Your task to perform on an android device: Open battery settings Image 0: 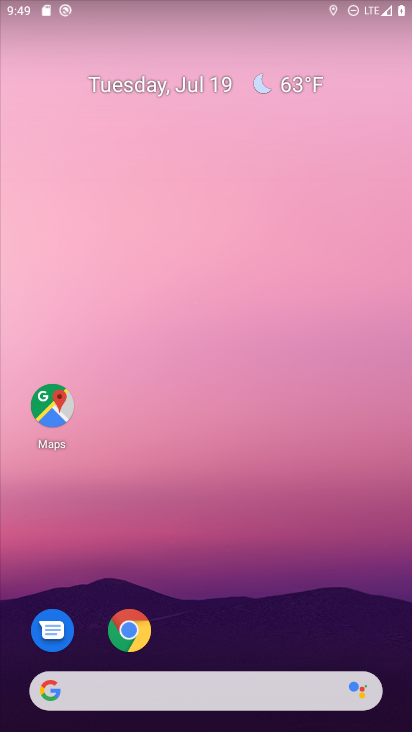
Step 0: drag from (219, 691) to (185, 50)
Your task to perform on an android device: Open battery settings Image 1: 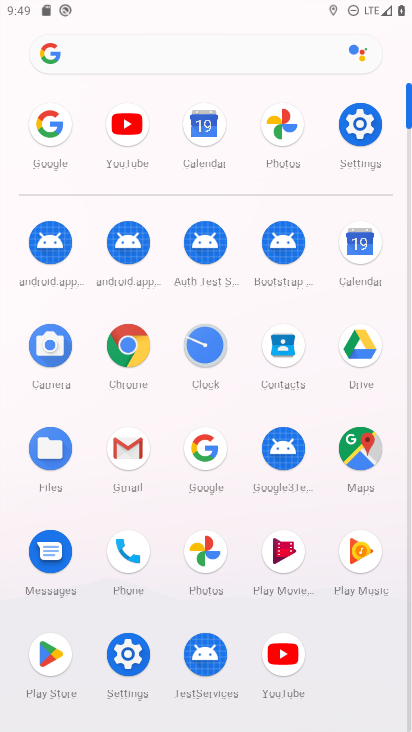
Step 1: click (361, 125)
Your task to perform on an android device: Open battery settings Image 2: 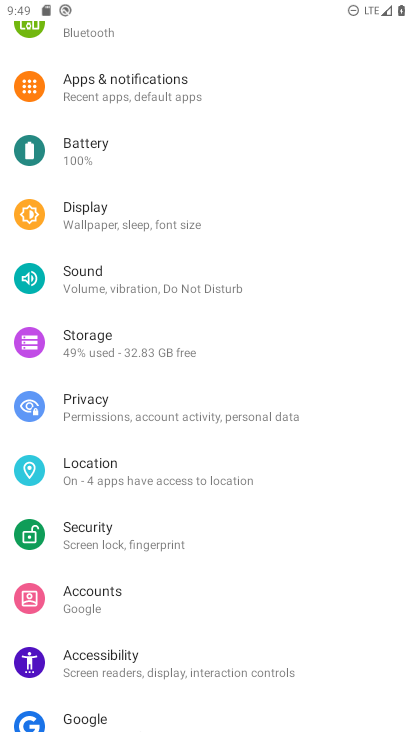
Step 2: click (83, 148)
Your task to perform on an android device: Open battery settings Image 3: 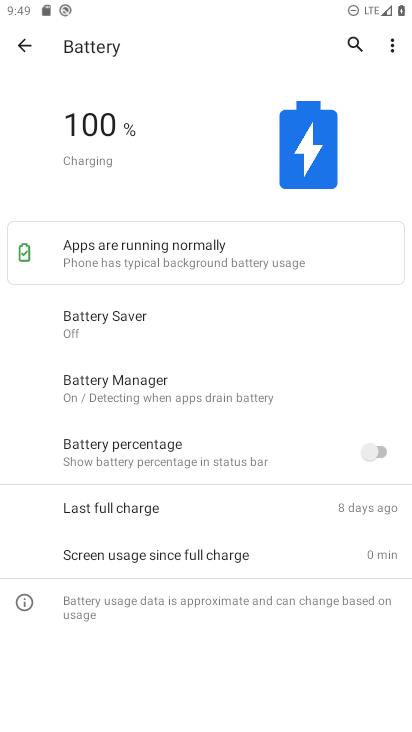
Step 3: task complete